Your task to perform on an android device: Clear the cart on amazon.com. Add apple airpods pro to the cart on amazon.com Image 0: 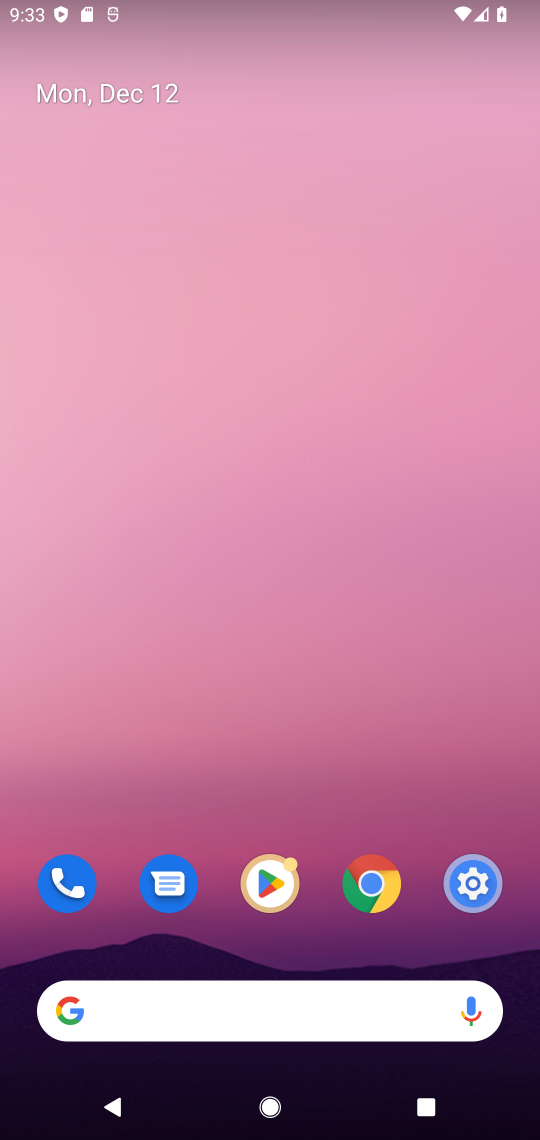
Step 0: click (239, 1001)
Your task to perform on an android device: Clear the cart on amazon.com. Add apple airpods pro to the cart on amazon.com Image 1: 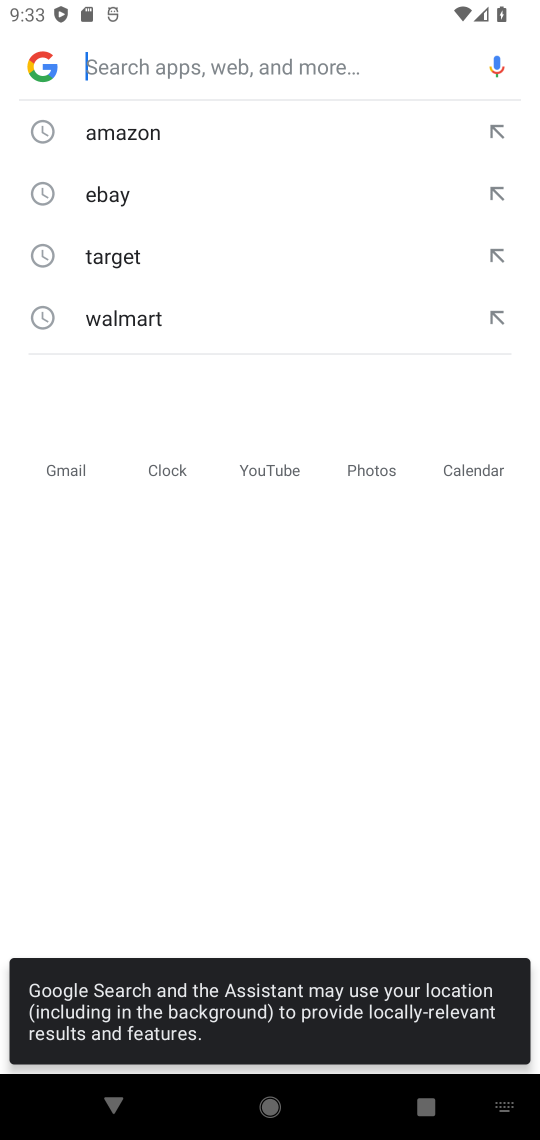
Step 1: click (144, 134)
Your task to perform on an android device: Clear the cart on amazon.com. Add apple airpods pro to the cart on amazon.com Image 2: 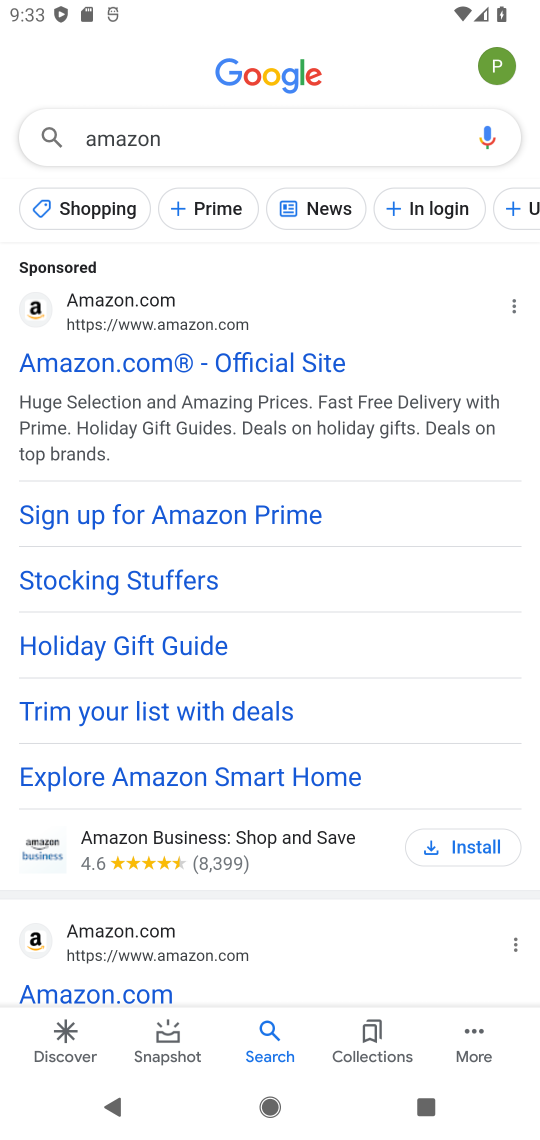
Step 2: click (92, 369)
Your task to perform on an android device: Clear the cart on amazon.com. Add apple airpods pro to the cart on amazon.com Image 3: 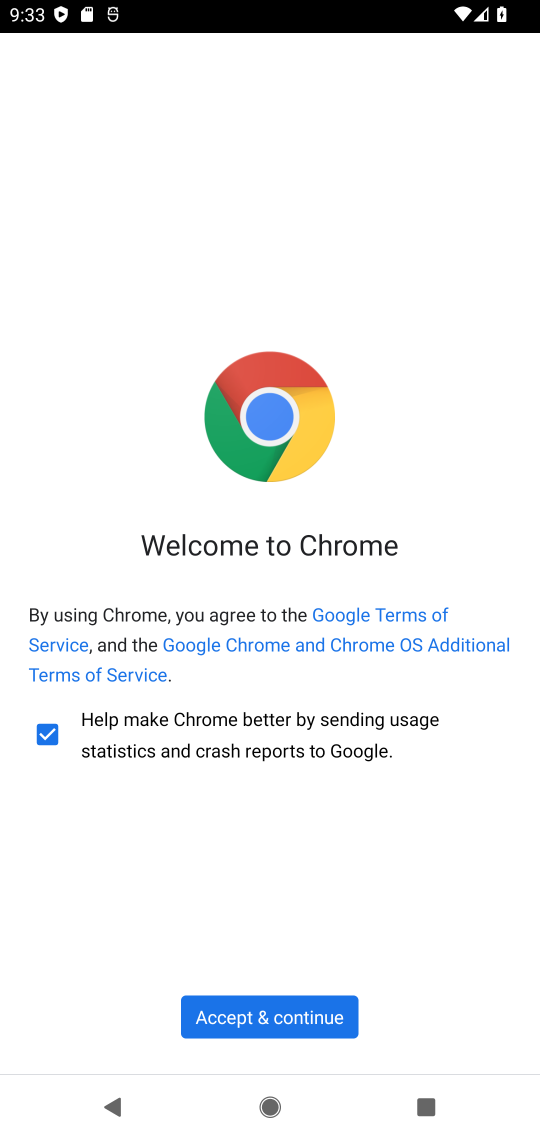
Step 3: click (231, 1003)
Your task to perform on an android device: Clear the cart on amazon.com. Add apple airpods pro to the cart on amazon.com Image 4: 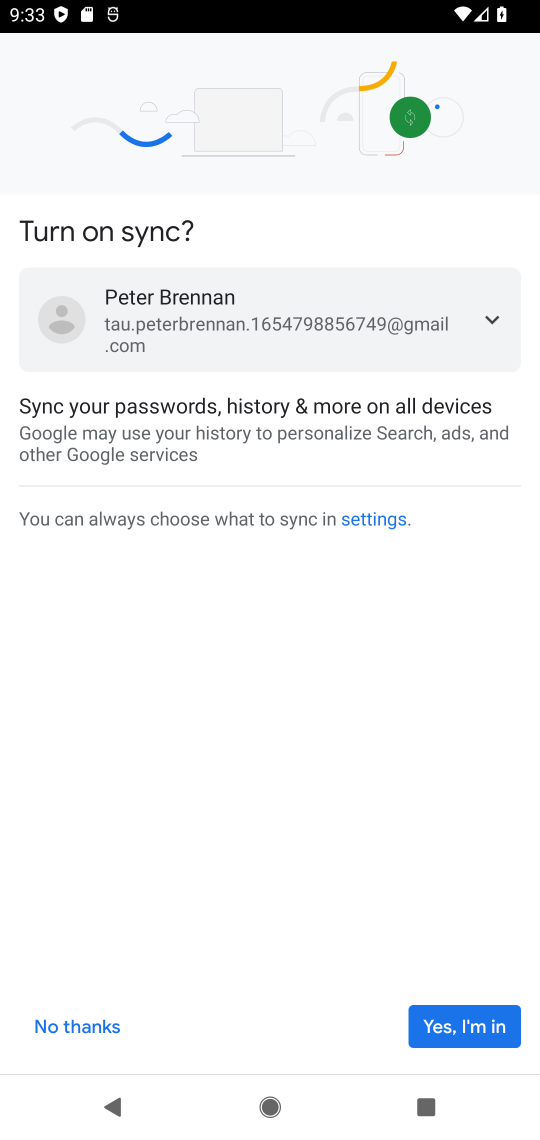
Step 4: click (445, 1032)
Your task to perform on an android device: Clear the cart on amazon.com. Add apple airpods pro to the cart on amazon.com Image 5: 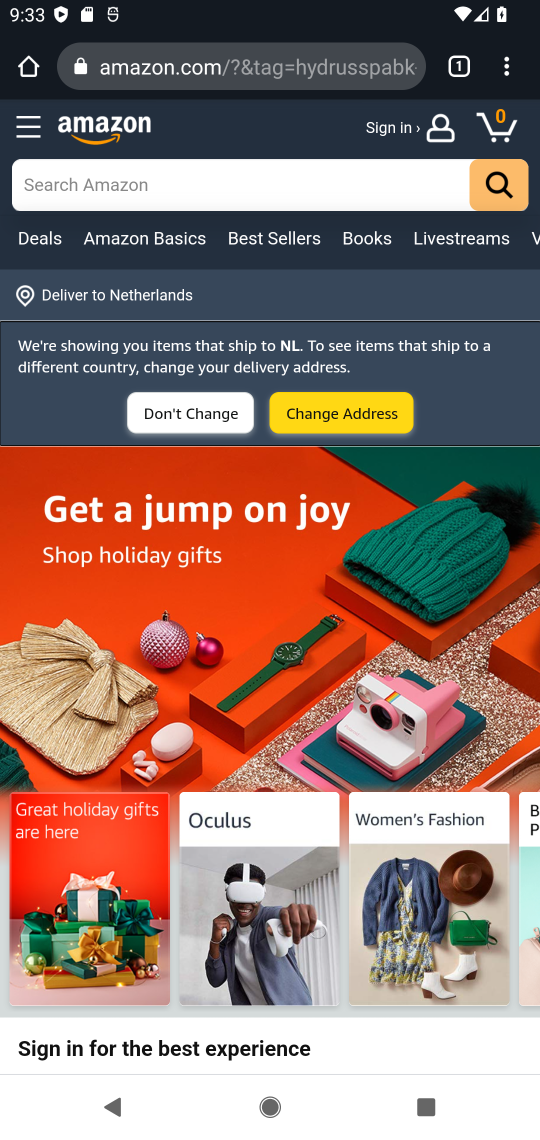
Step 5: click (509, 120)
Your task to perform on an android device: Clear the cart on amazon.com. Add apple airpods pro to the cart on amazon.com Image 6: 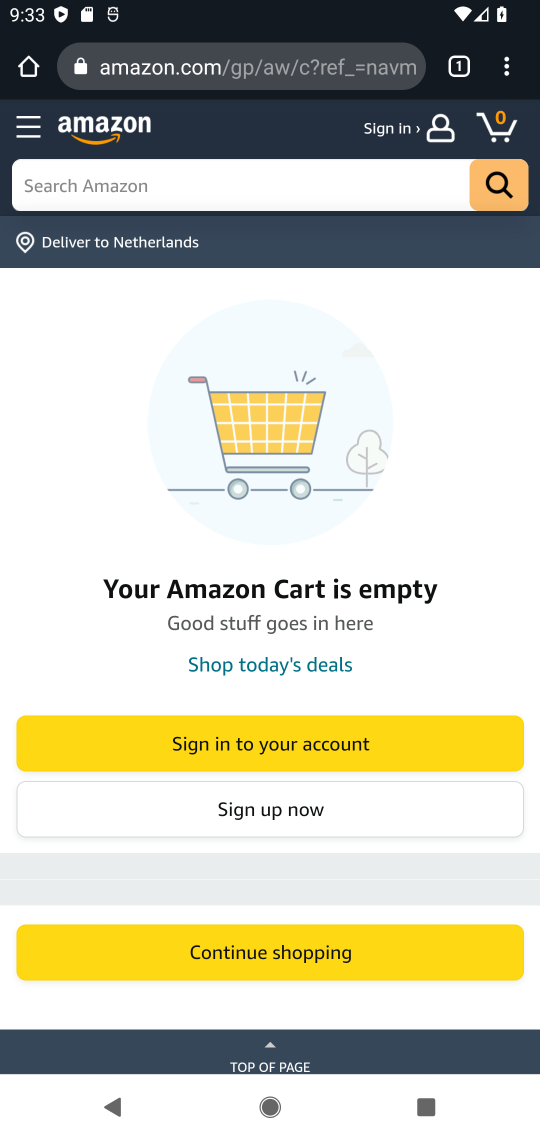
Step 6: task complete